Your task to perform on an android device: Open location settings Image 0: 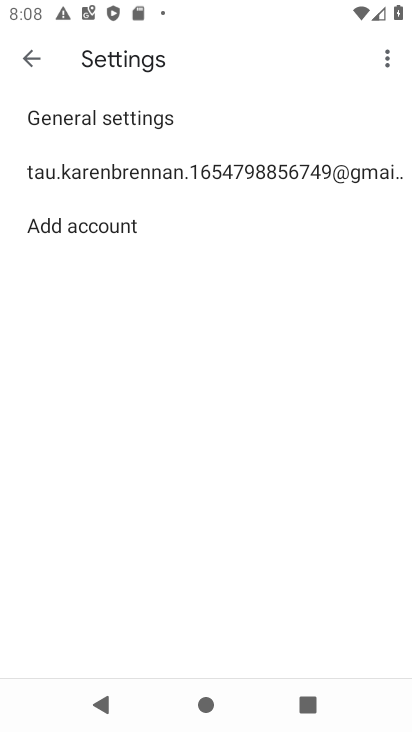
Step 0: press home button
Your task to perform on an android device: Open location settings Image 1: 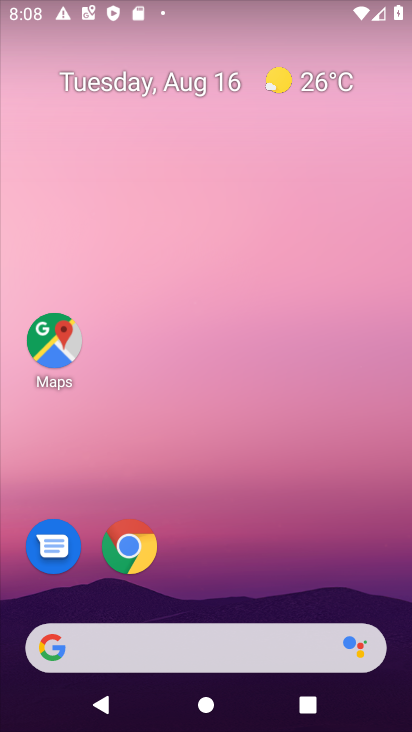
Step 1: drag from (234, 527) to (196, 7)
Your task to perform on an android device: Open location settings Image 2: 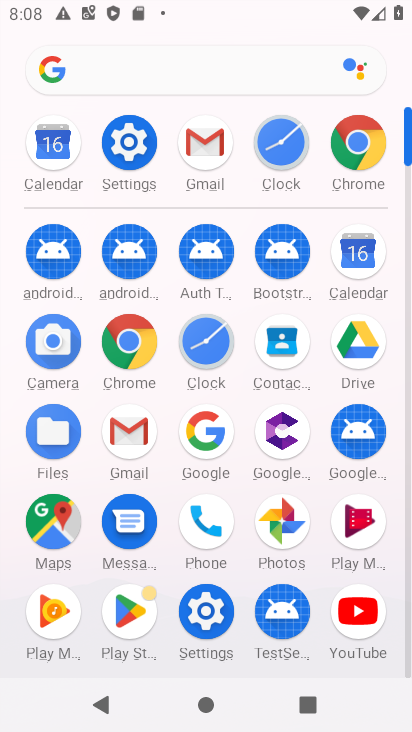
Step 2: click (128, 138)
Your task to perform on an android device: Open location settings Image 3: 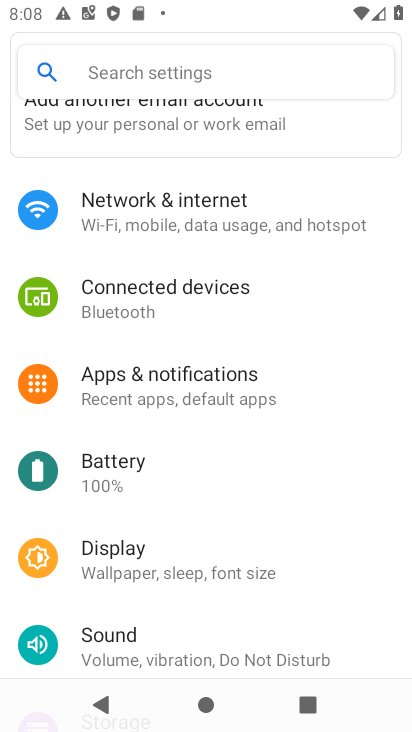
Step 3: drag from (185, 611) to (233, 118)
Your task to perform on an android device: Open location settings Image 4: 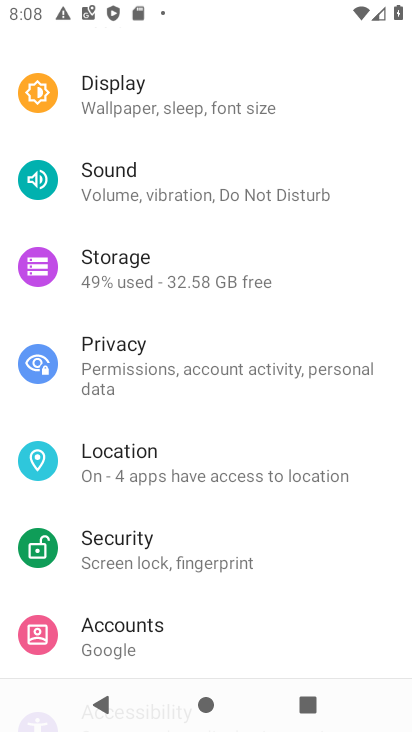
Step 4: click (180, 453)
Your task to perform on an android device: Open location settings Image 5: 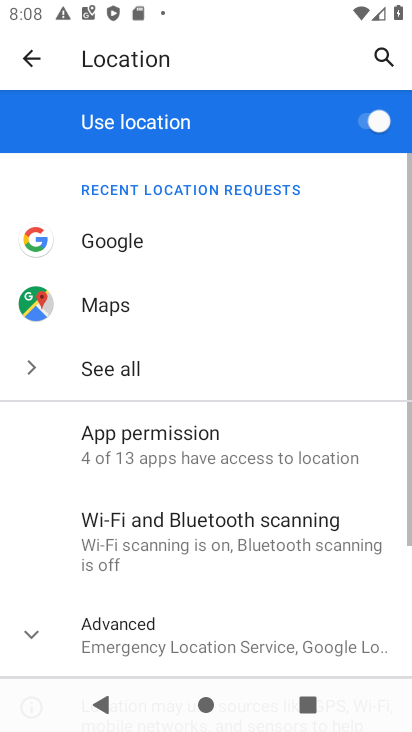
Step 5: task complete